Your task to perform on an android device: Open the Play Movies app and select the watchlist tab. Image 0: 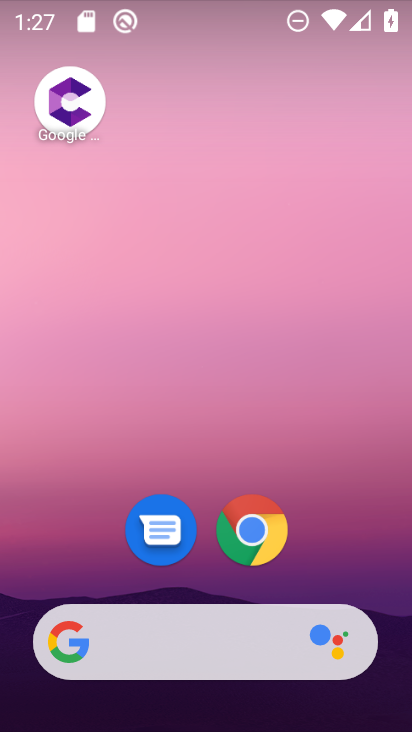
Step 0: drag from (349, 540) to (232, 38)
Your task to perform on an android device: Open the Play Movies app and select the watchlist tab. Image 1: 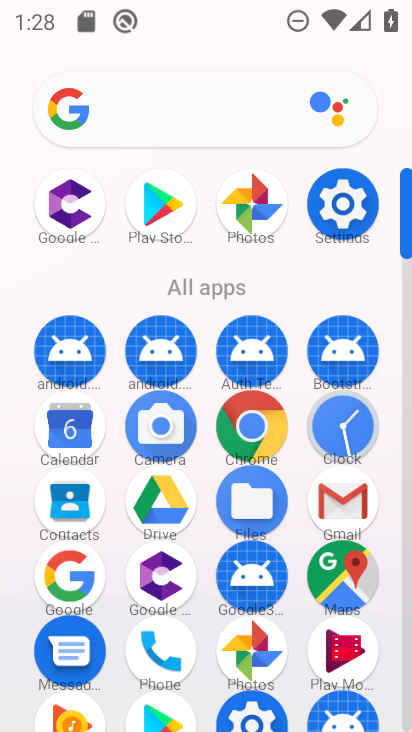
Step 1: drag from (303, 306) to (304, 92)
Your task to perform on an android device: Open the Play Movies app and select the watchlist tab. Image 2: 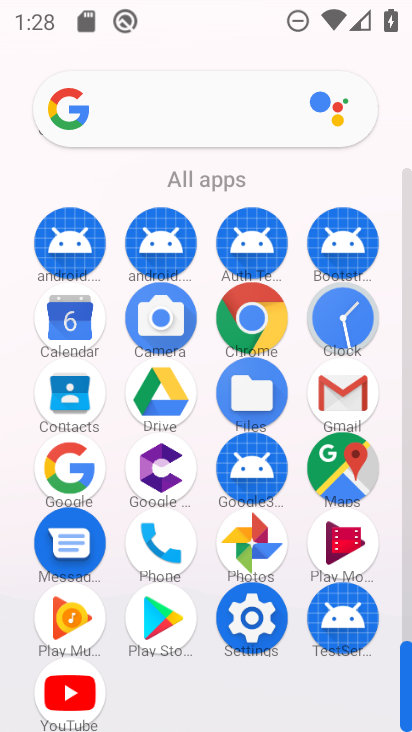
Step 2: click (346, 540)
Your task to perform on an android device: Open the Play Movies app and select the watchlist tab. Image 3: 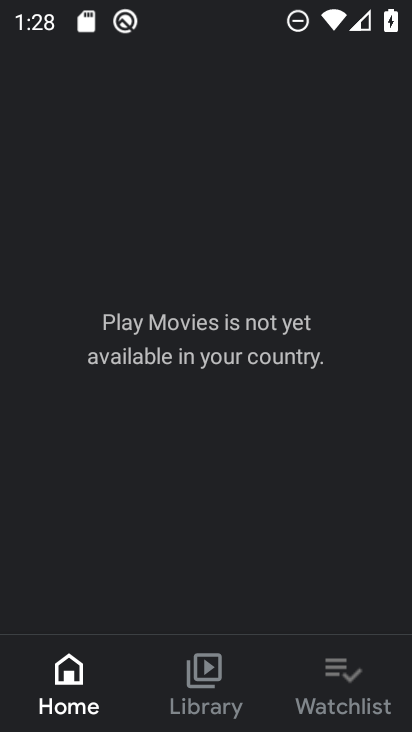
Step 3: click (345, 673)
Your task to perform on an android device: Open the Play Movies app and select the watchlist tab. Image 4: 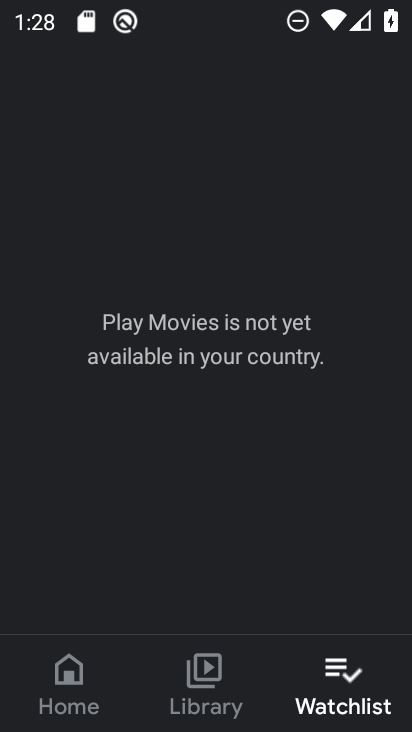
Step 4: task complete